Your task to perform on an android device: Open Youtube and go to "Your channel" Image 0: 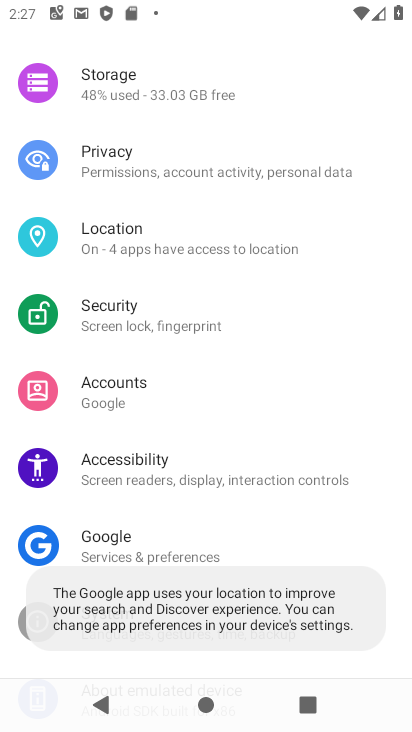
Step 0: click (133, 535)
Your task to perform on an android device: Open Youtube and go to "Your channel" Image 1: 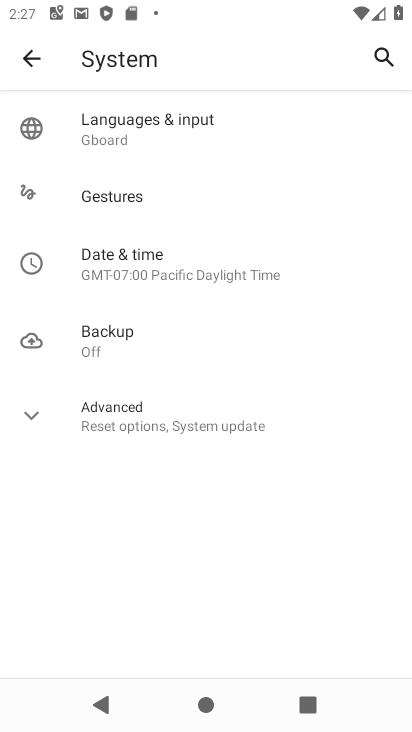
Step 1: press home button
Your task to perform on an android device: Open Youtube and go to "Your channel" Image 2: 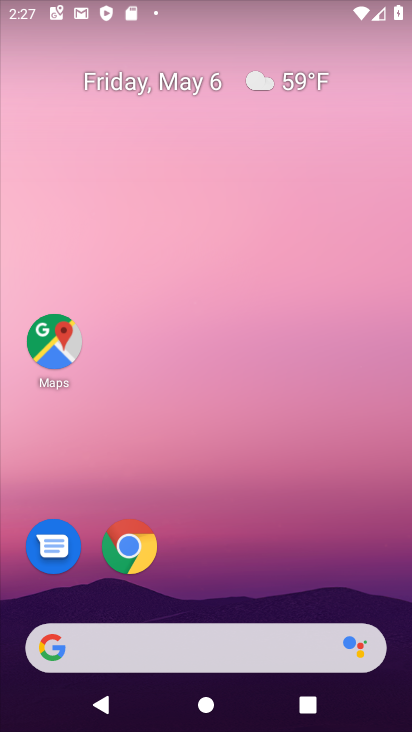
Step 2: drag from (236, 539) to (234, 100)
Your task to perform on an android device: Open Youtube and go to "Your channel" Image 3: 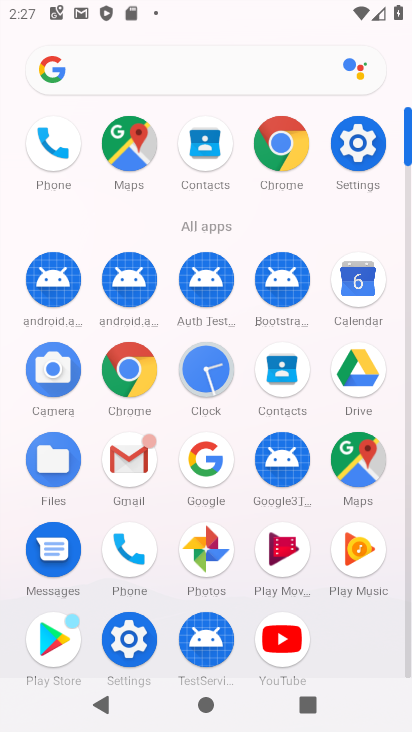
Step 3: click (285, 641)
Your task to perform on an android device: Open Youtube and go to "Your channel" Image 4: 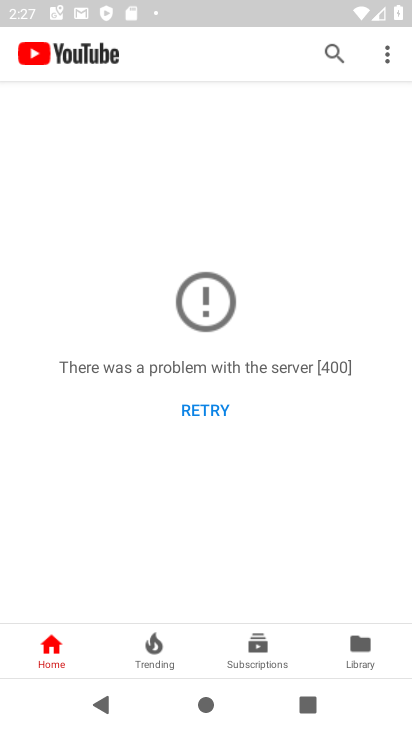
Step 4: click (211, 415)
Your task to perform on an android device: Open Youtube and go to "Your channel" Image 5: 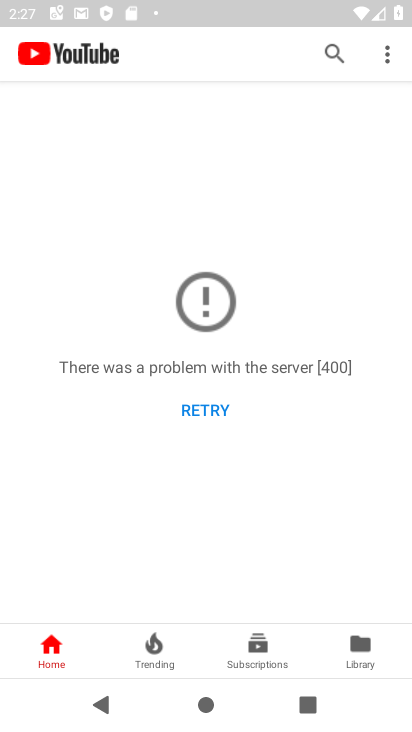
Step 5: click (393, 53)
Your task to perform on an android device: Open Youtube and go to "Your channel" Image 6: 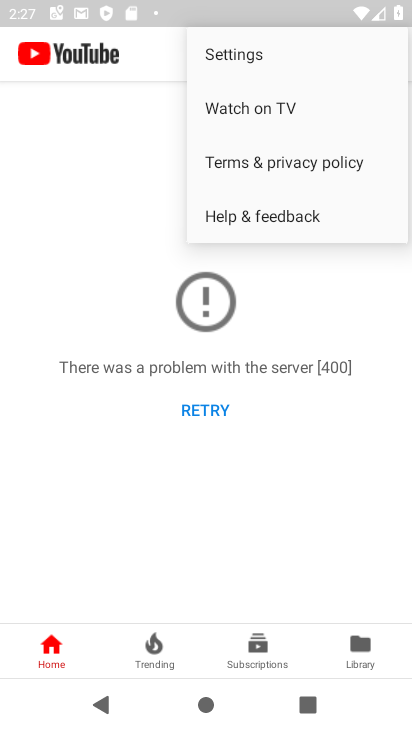
Step 6: click (251, 58)
Your task to perform on an android device: Open Youtube and go to "Your channel" Image 7: 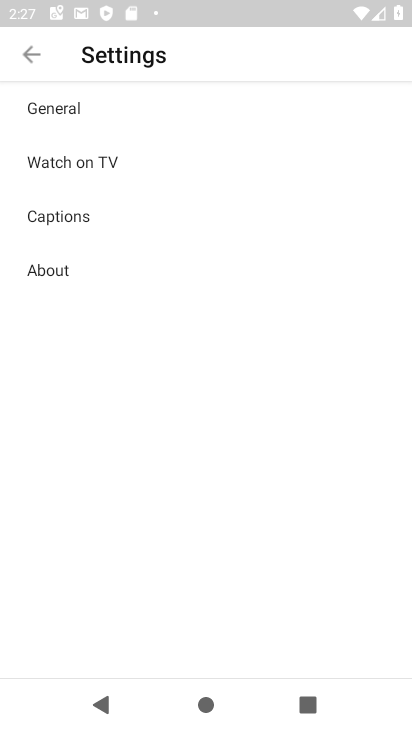
Step 7: click (61, 114)
Your task to perform on an android device: Open Youtube and go to "Your channel" Image 8: 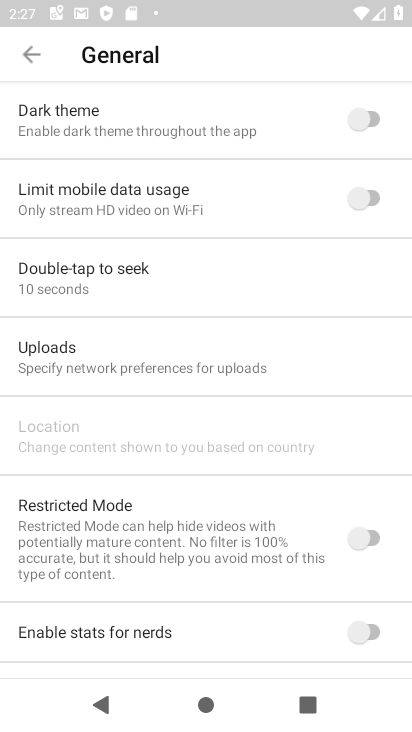
Step 8: click (33, 56)
Your task to perform on an android device: Open Youtube and go to "Your channel" Image 9: 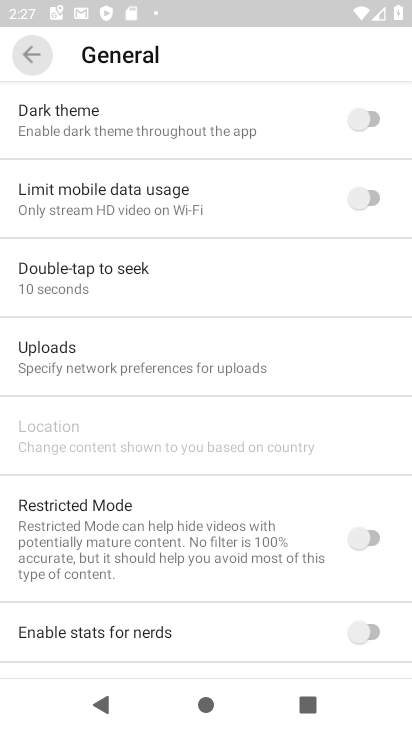
Step 9: click (33, 56)
Your task to perform on an android device: Open Youtube and go to "Your channel" Image 10: 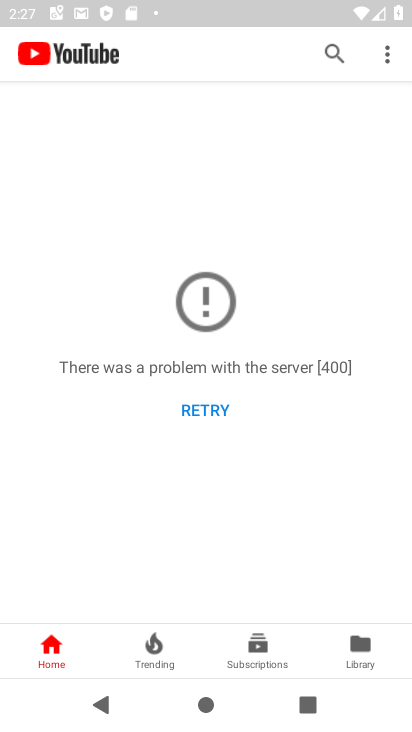
Step 10: click (33, 56)
Your task to perform on an android device: Open Youtube and go to "Your channel" Image 11: 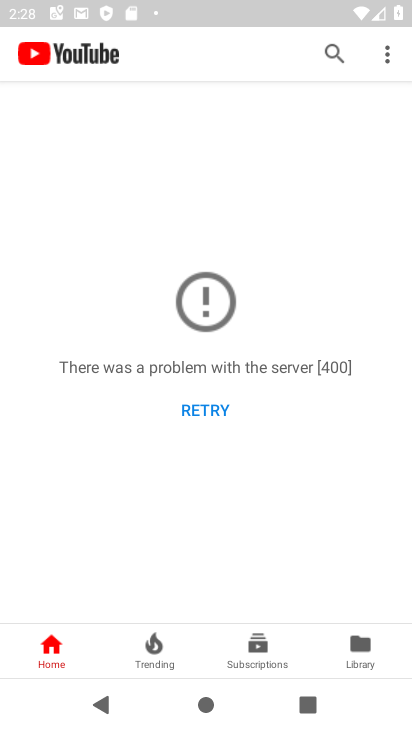
Step 11: click (224, 404)
Your task to perform on an android device: Open Youtube and go to "Your channel" Image 12: 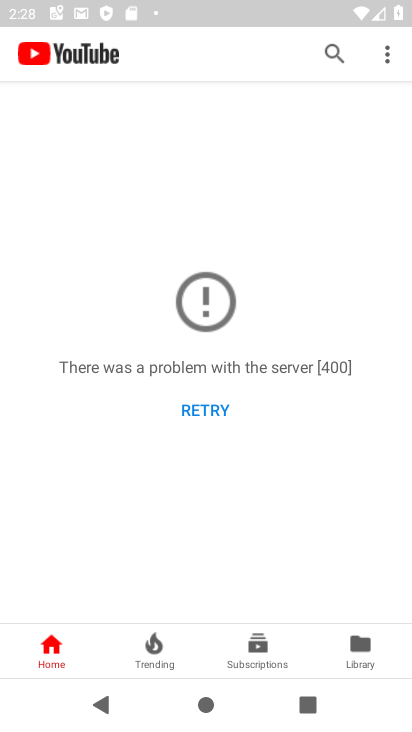
Step 12: task complete